Your task to perform on an android device: read, delete, or share a saved page in the chrome app Image 0: 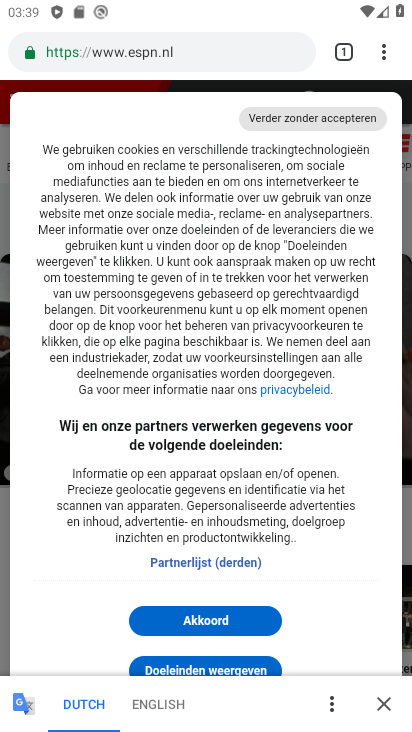
Step 0: press home button
Your task to perform on an android device: read, delete, or share a saved page in the chrome app Image 1: 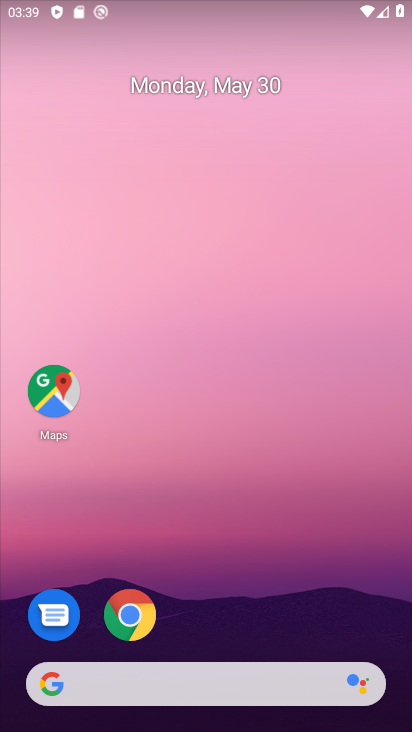
Step 1: click (130, 613)
Your task to perform on an android device: read, delete, or share a saved page in the chrome app Image 2: 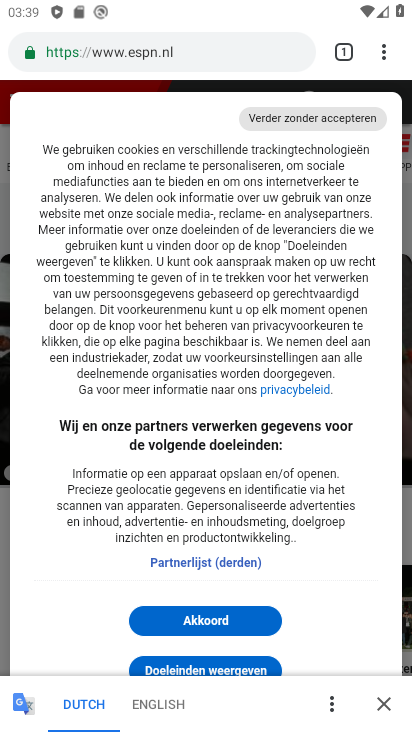
Step 2: click (384, 52)
Your task to perform on an android device: read, delete, or share a saved page in the chrome app Image 3: 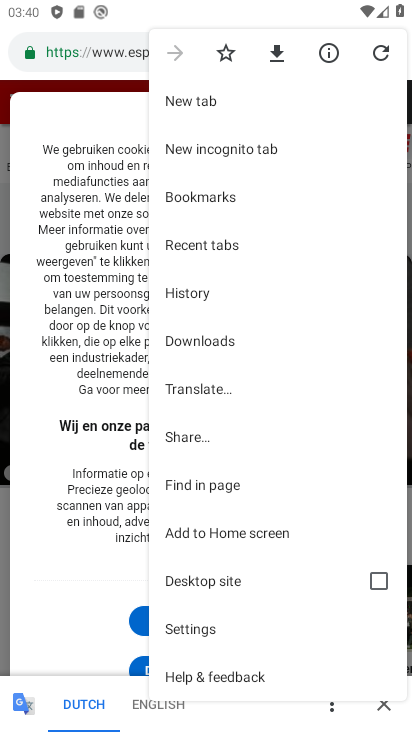
Step 3: click (221, 340)
Your task to perform on an android device: read, delete, or share a saved page in the chrome app Image 4: 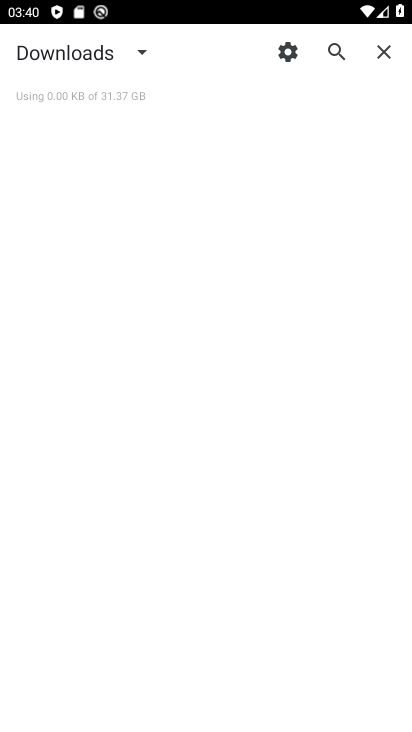
Step 4: task complete